Your task to perform on an android device: Open maps Image 0: 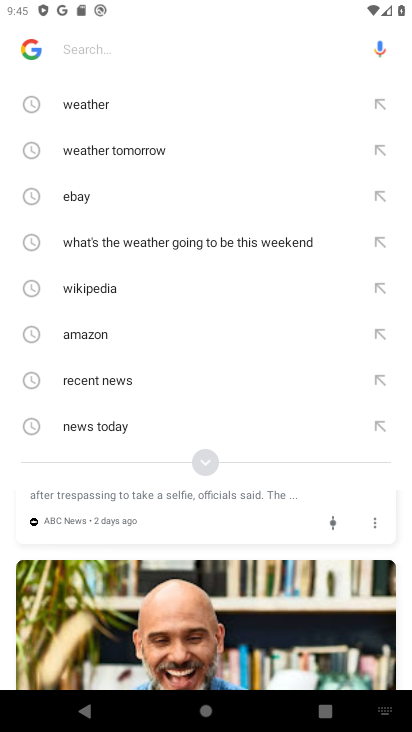
Step 0: press home button
Your task to perform on an android device: Open maps Image 1: 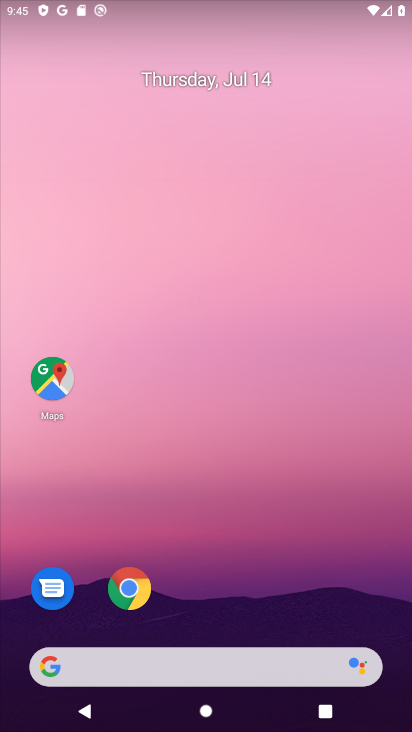
Step 1: click (48, 379)
Your task to perform on an android device: Open maps Image 2: 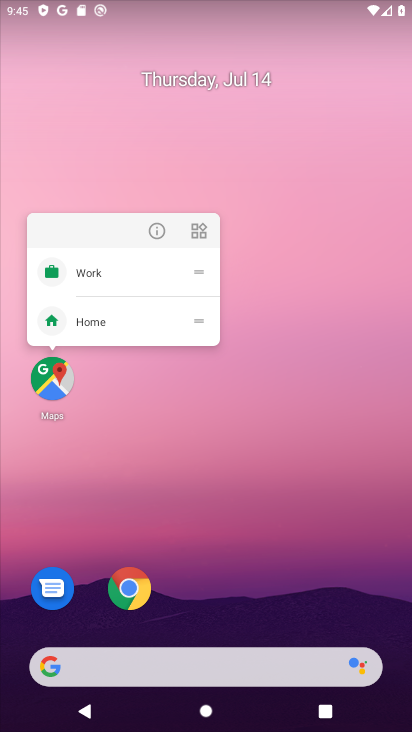
Step 2: click (60, 377)
Your task to perform on an android device: Open maps Image 3: 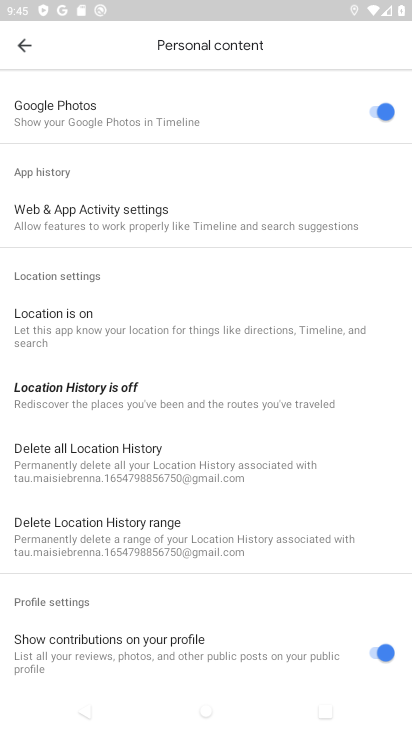
Step 3: click (27, 46)
Your task to perform on an android device: Open maps Image 4: 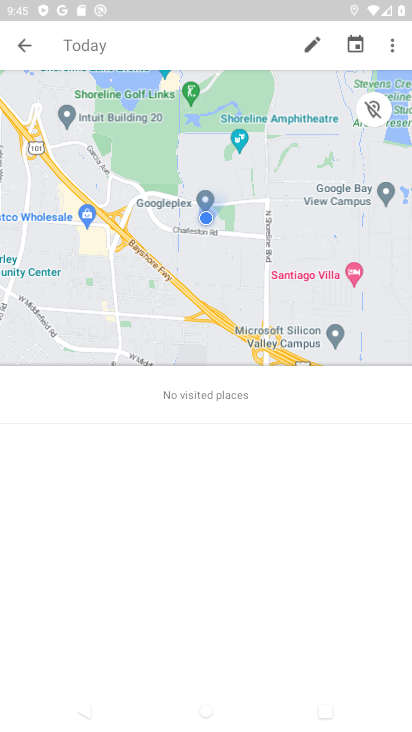
Step 4: click (27, 46)
Your task to perform on an android device: Open maps Image 5: 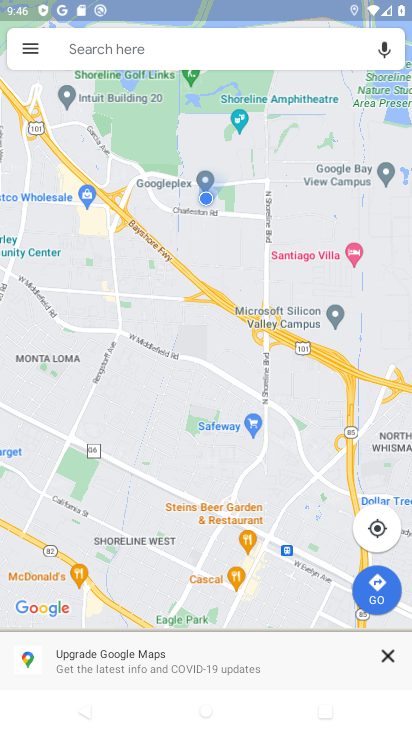
Step 5: task complete